Your task to perform on an android device: install app "Yahoo Mail" Image 0: 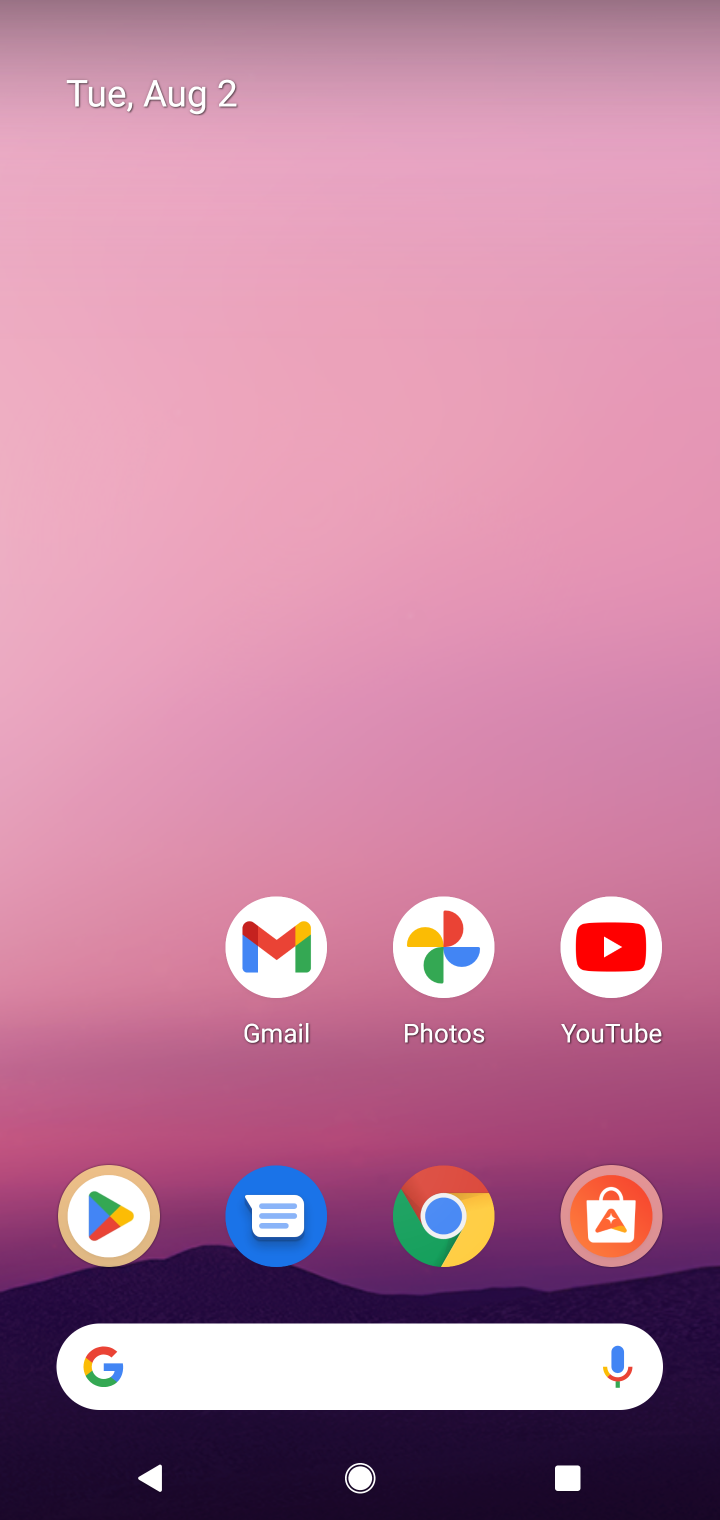
Step 0: click (116, 1207)
Your task to perform on an android device: install app "Yahoo Mail" Image 1: 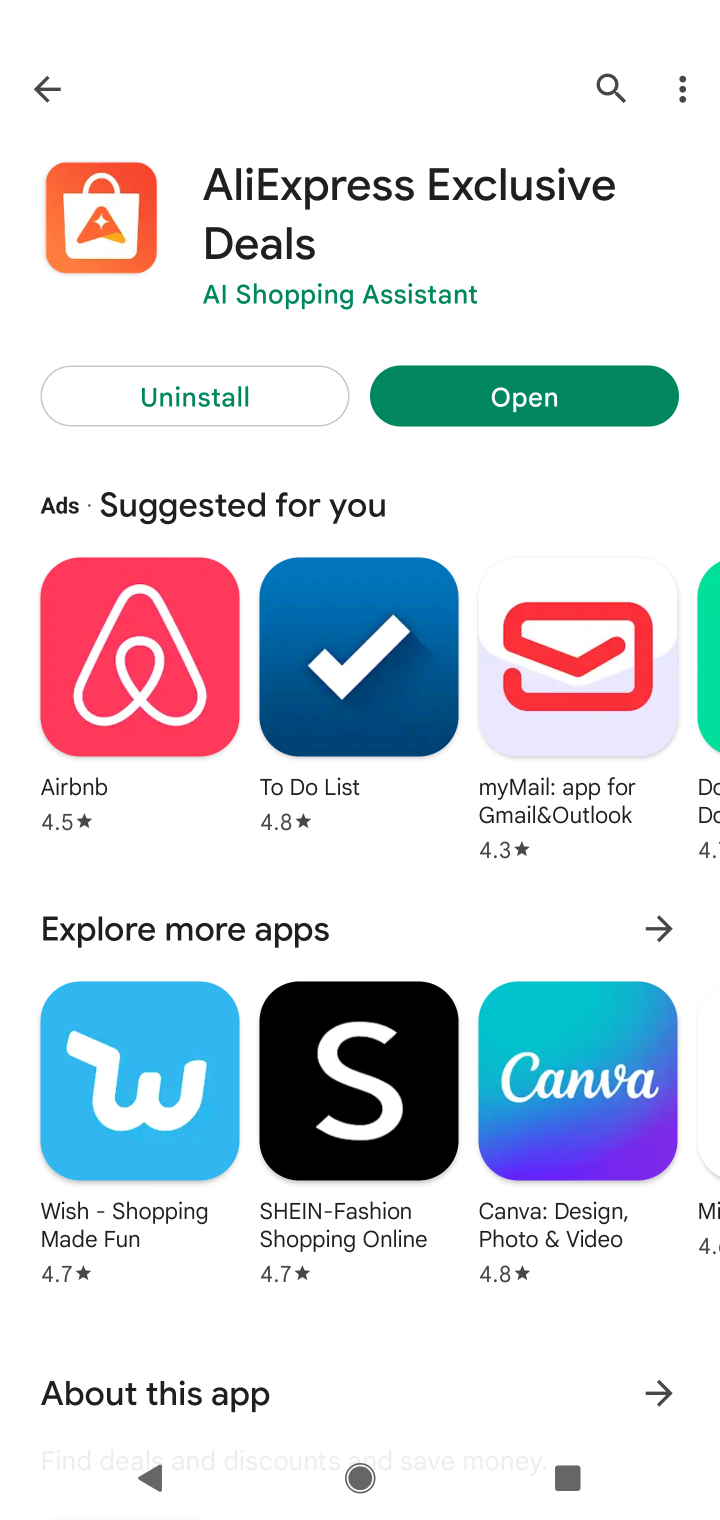
Step 1: click (582, 98)
Your task to perform on an android device: install app "Yahoo Mail" Image 2: 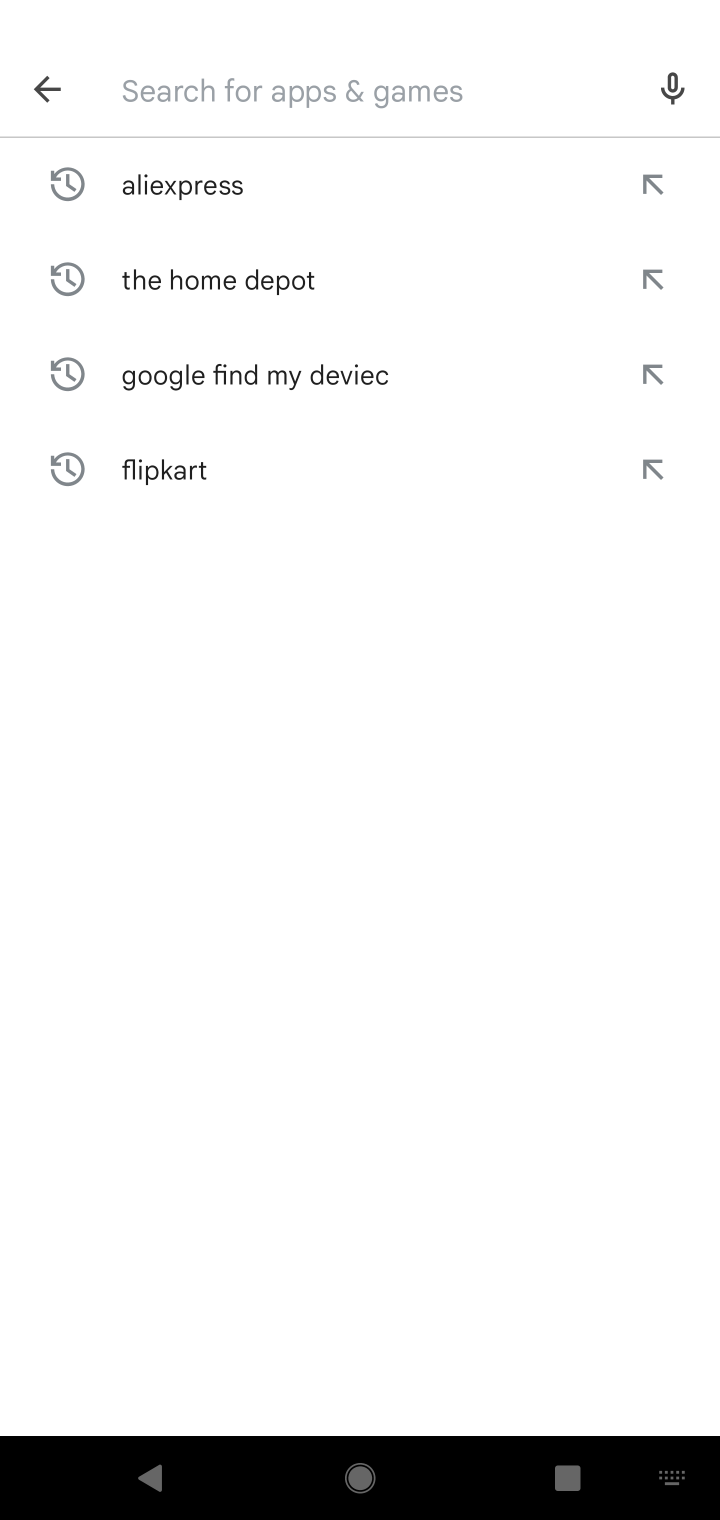
Step 2: type "yahoomail"
Your task to perform on an android device: install app "Yahoo Mail" Image 3: 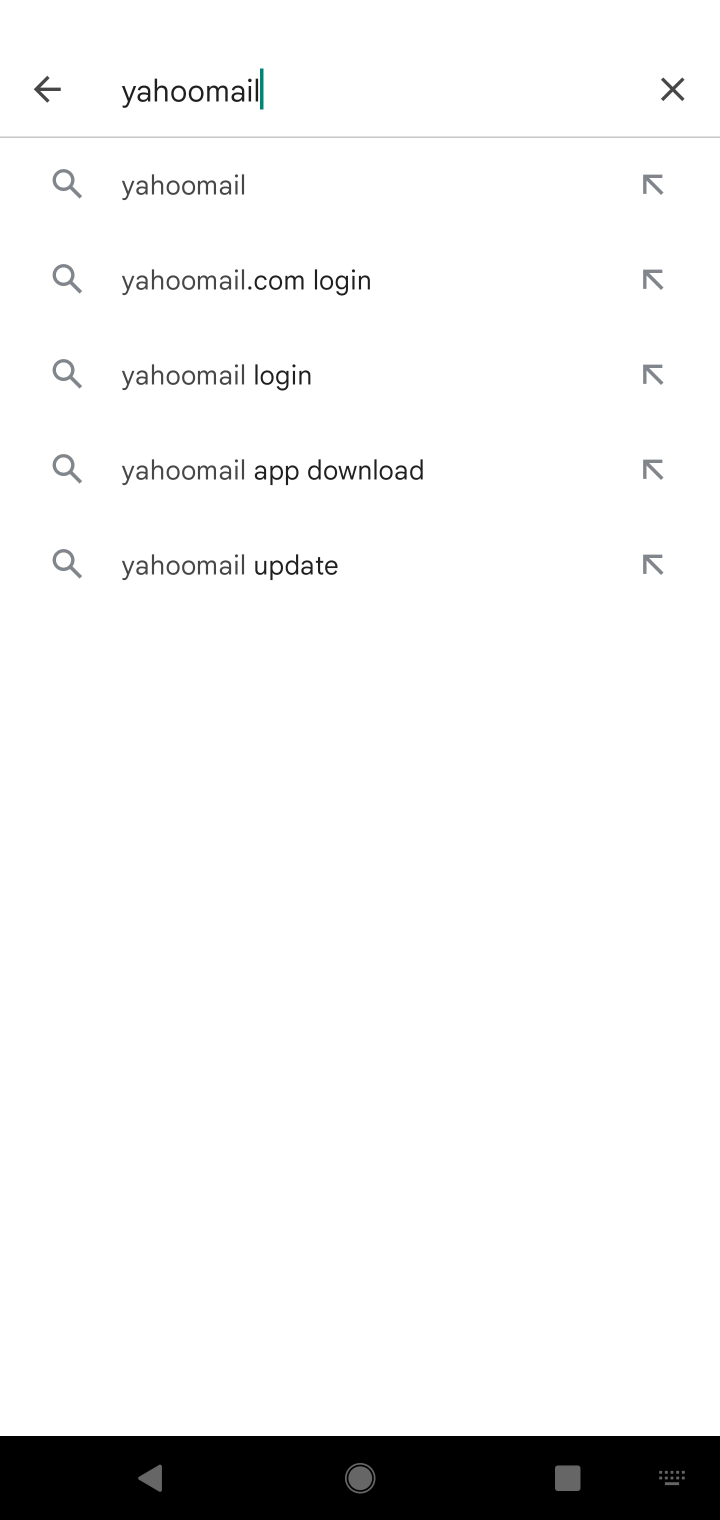
Step 3: click (240, 188)
Your task to perform on an android device: install app "Yahoo Mail" Image 4: 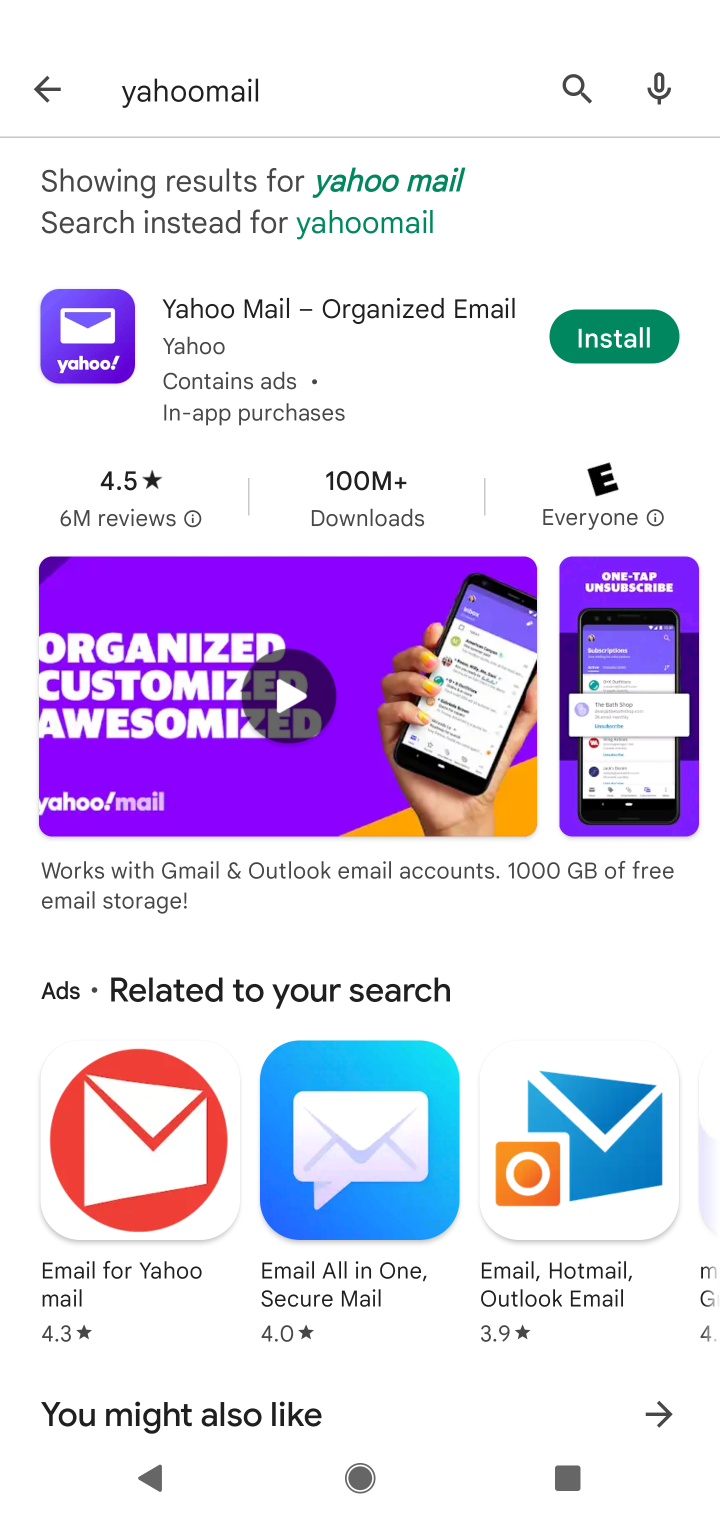
Step 4: click (635, 333)
Your task to perform on an android device: install app "Yahoo Mail" Image 5: 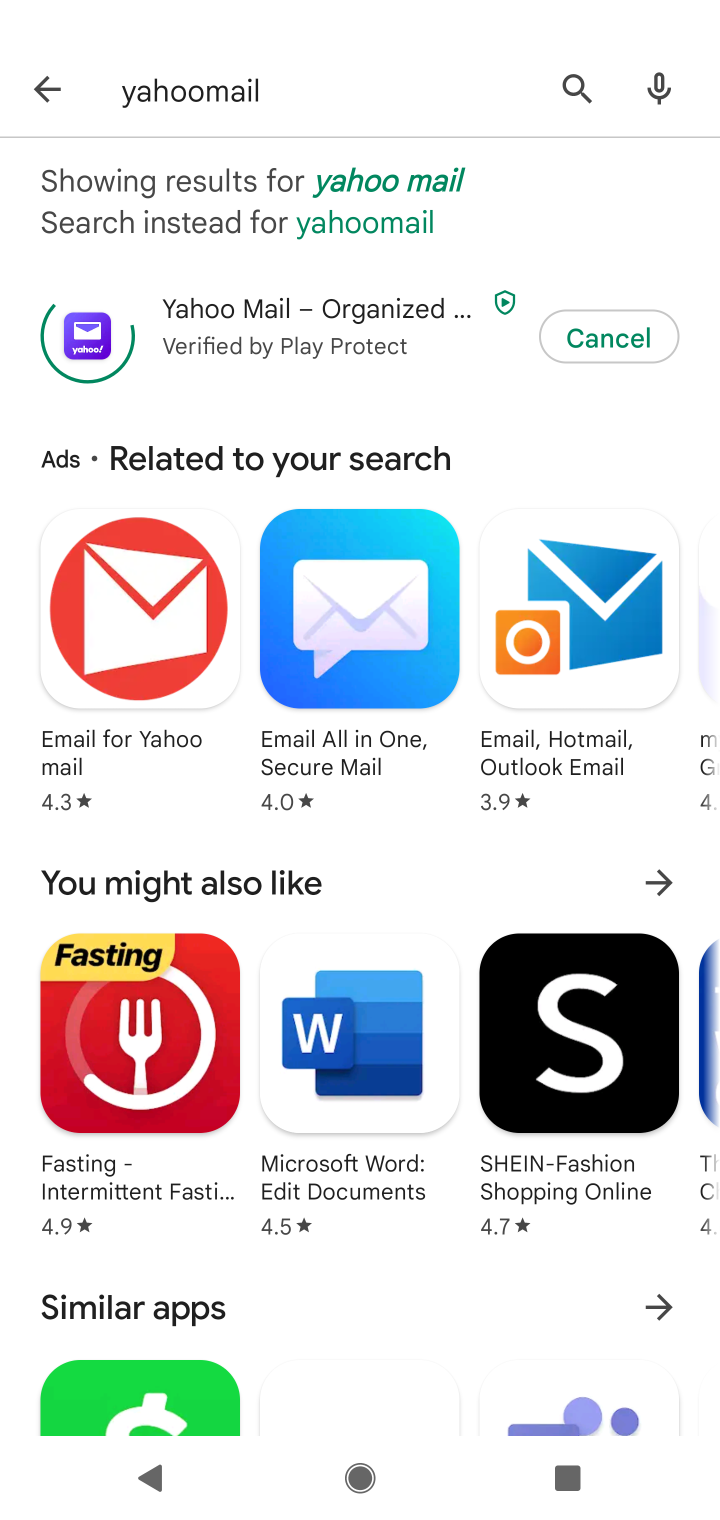
Step 5: task complete